Your task to perform on an android device: turn on airplane mode Image 0: 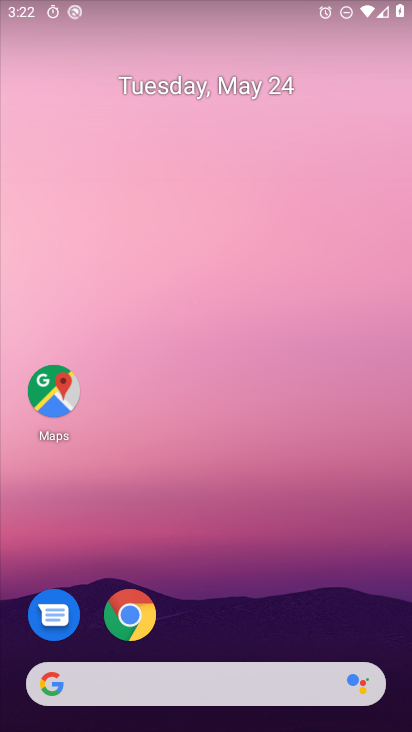
Step 0: drag from (241, 666) to (220, 226)
Your task to perform on an android device: turn on airplane mode Image 1: 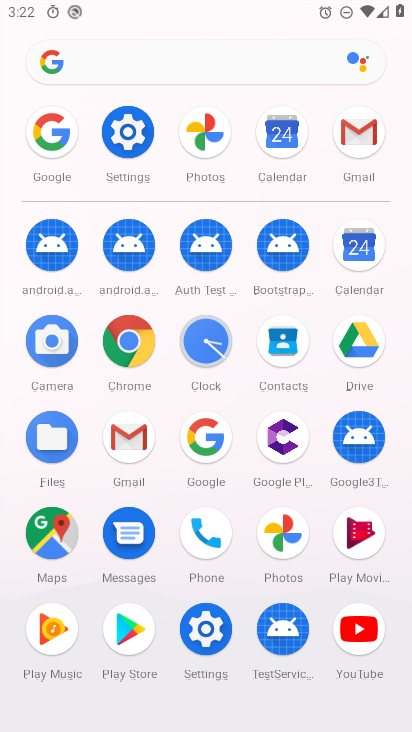
Step 1: click (136, 139)
Your task to perform on an android device: turn on airplane mode Image 2: 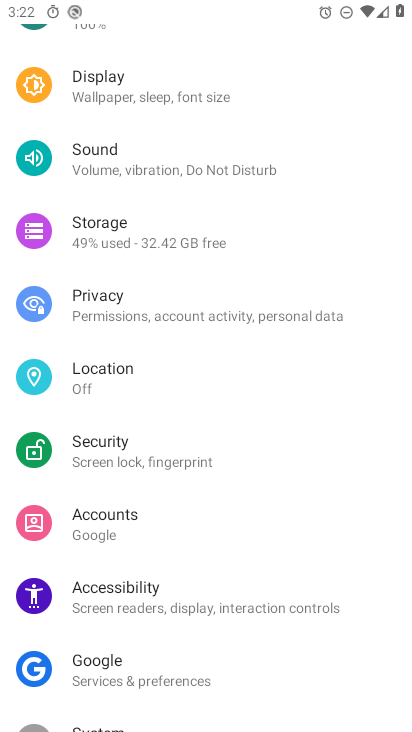
Step 2: click (232, 506)
Your task to perform on an android device: turn on airplane mode Image 3: 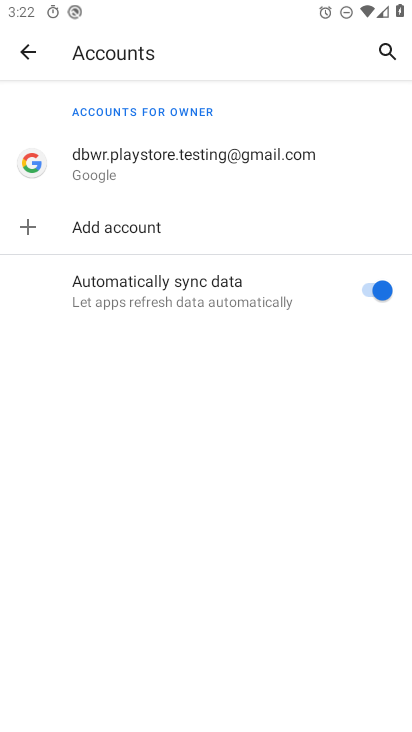
Step 3: click (33, 48)
Your task to perform on an android device: turn on airplane mode Image 4: 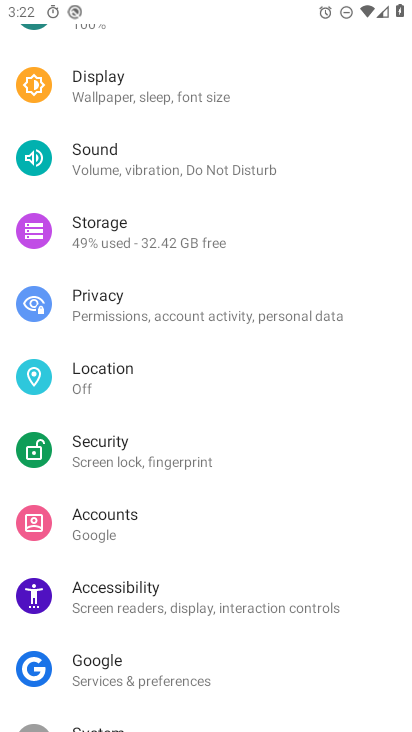
Step 4: drag from (221, 70) to (208, 535)
Your task to perform on an android device: turn on airplane mode Image 5: 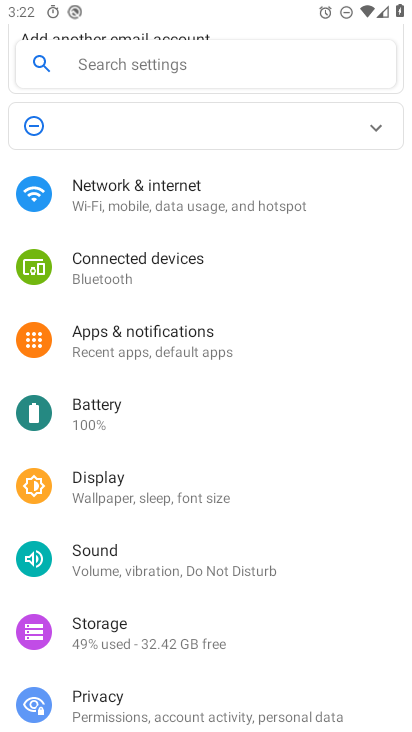
Step 5: click (160, 187)
Your task to perform on an android device: turn on airplane mode Image 6: 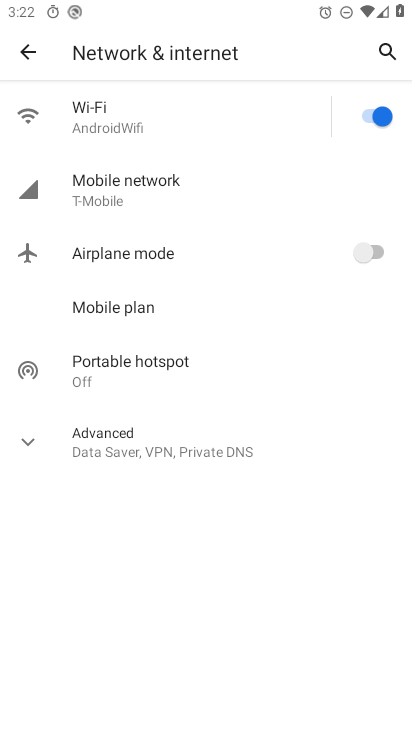
Step 6: click (374, 251)
Your task to perform on an android device: turn on airplane mode Image 7: 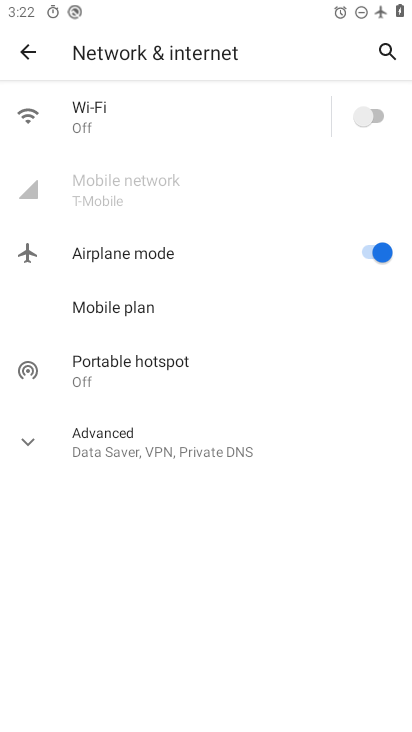
Step 7: task complete